Your task to perform on an android device: choose inbox layout in the gmail app Image 0: 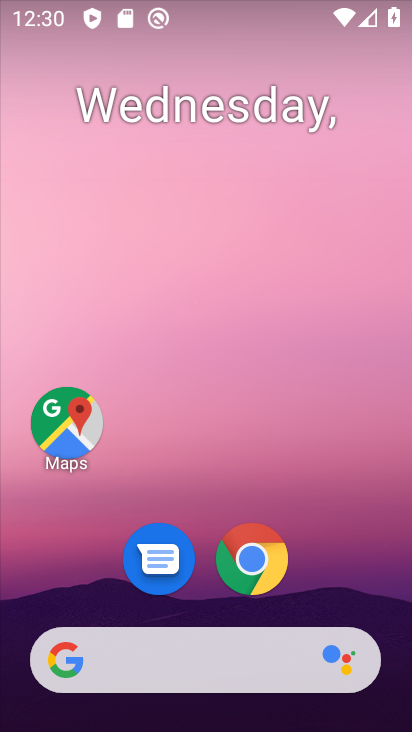
Step 0: press home button
Your task to perform on an android device: choose inbox layout in the gmail app Image 1: 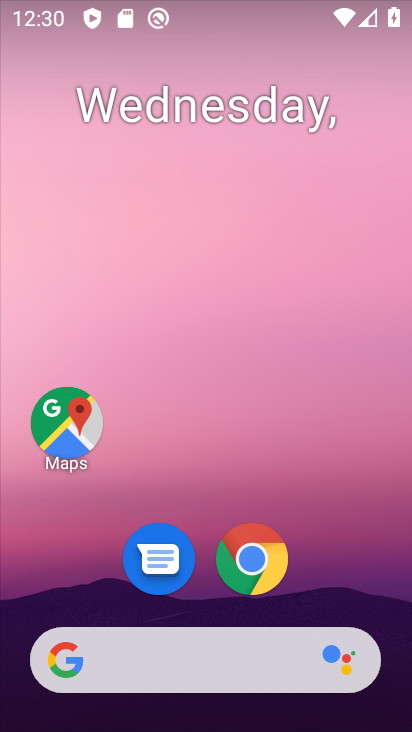
Step 1: drag from (327, 534) to (306, 137)
Your task to perform on an android device: choose inbox layout in the gmail app Image 2: 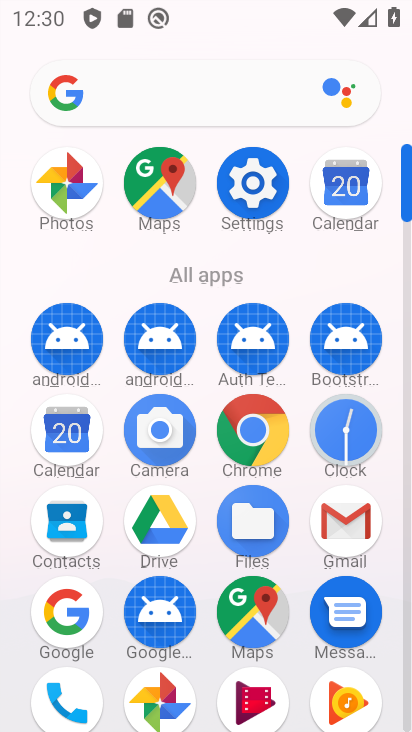
Step 2: click (343, 520)
Your task to perform on an android device: choose inbox layout in the gmail app Image 3: 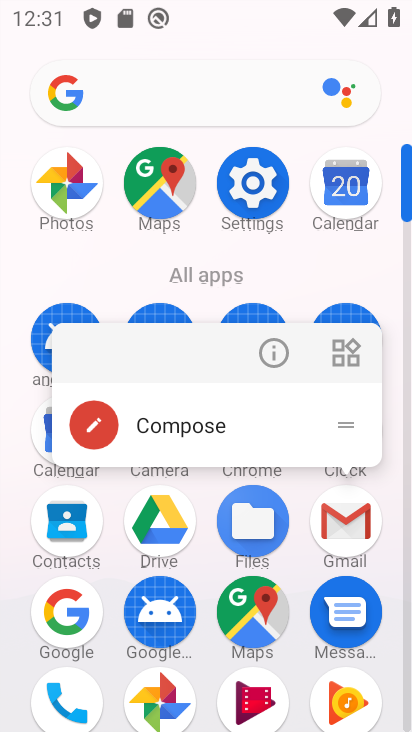
Step 3: click (343, 520)
Your task to perform on an android device: choose inbox layout in the gmail app Image 4: 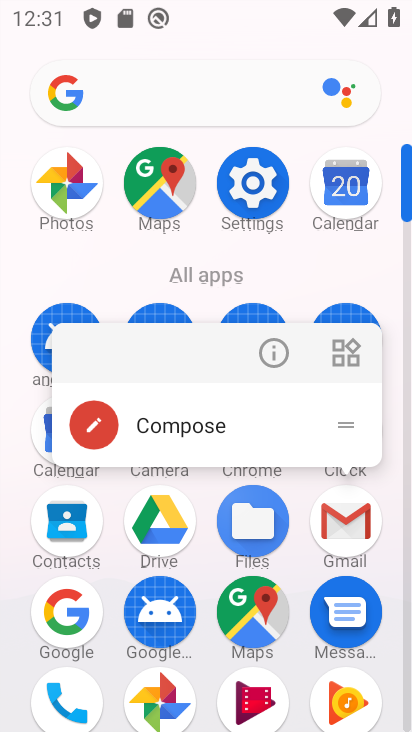
Step 4: click (344, 520)
Your task to perform on an android device: choose inbox layout in the gmail app Image 5: 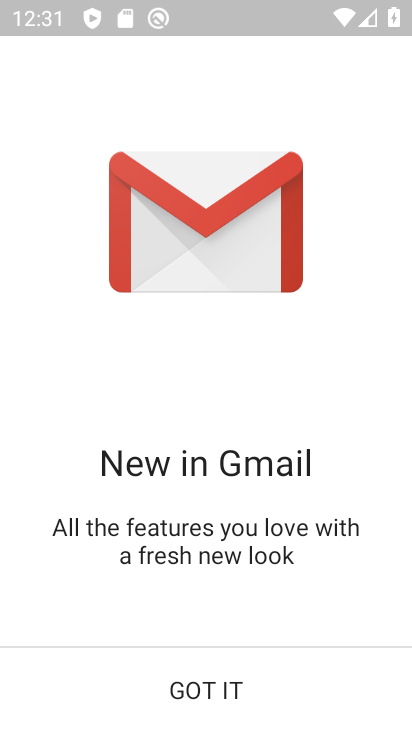
Step 5: click (214, 682)
Your task to perform on an android device: choose inbox layout in the gmail app Image 6: 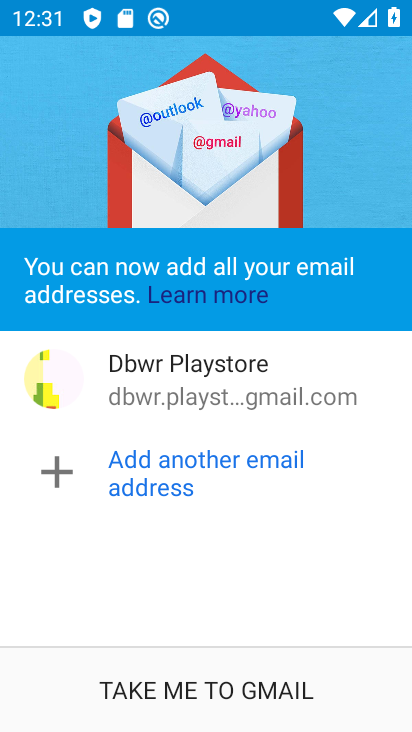
Step 6: click (217, 678)
Your task to perform on an android device: choose inbox layout in the gmail app Image 7: 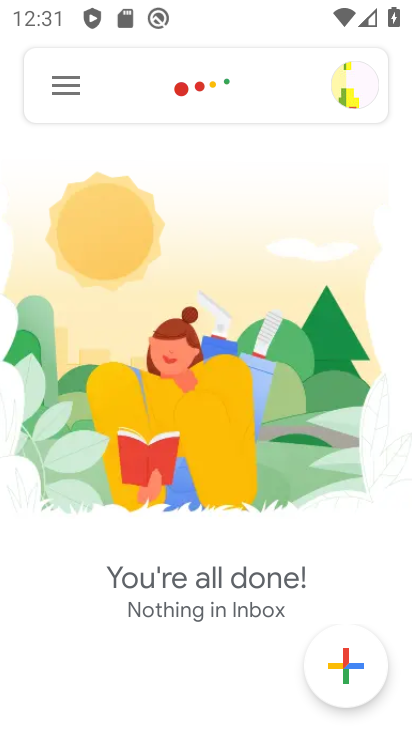
Step 7: click (64, 90)
Your task to perform on an android device: choose inbox layout in the gmail app Image 8: 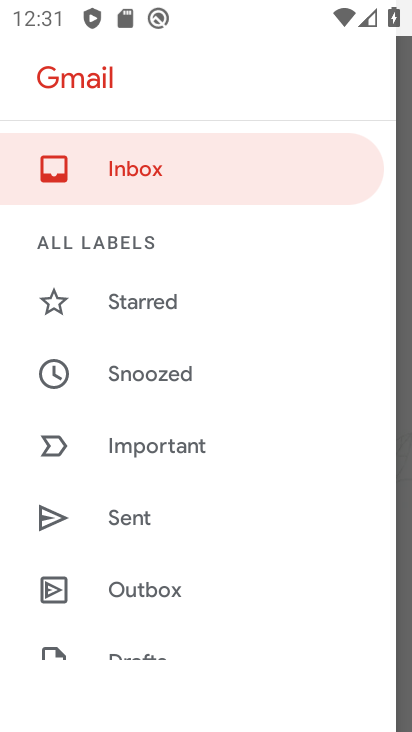
Step 8: click (123, 168)
Your task to perform on an android device: choose inbox layout in the gmail app Image 9: 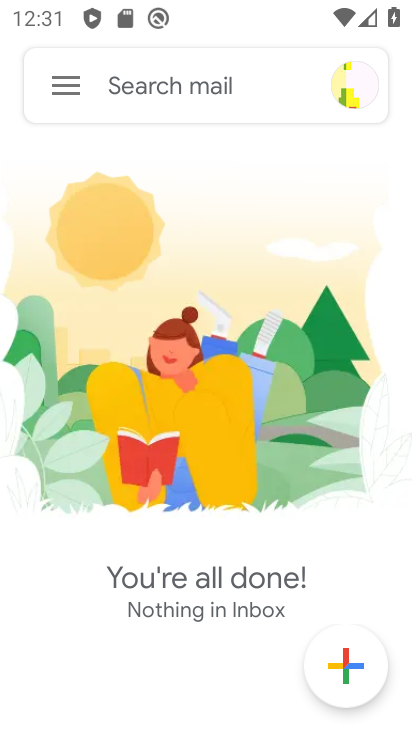
Step 9: task complete